Your task to perform on an android device: Is it going to rain tomorrow? Image 0: 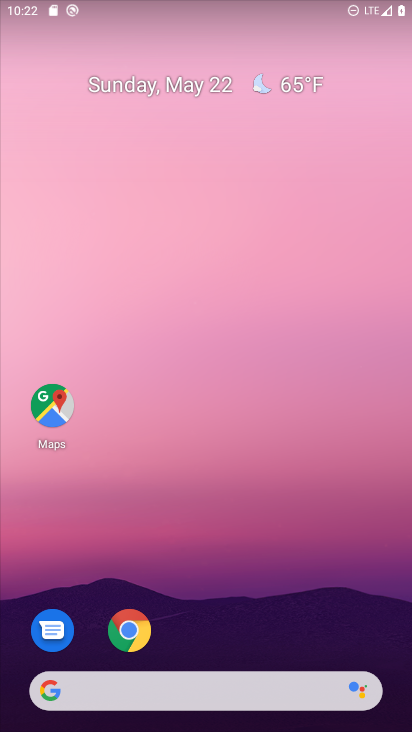
Step 0: click (53, 692)
Your task to perform on an android device: Is it going to rain tomorrow? Image 1: 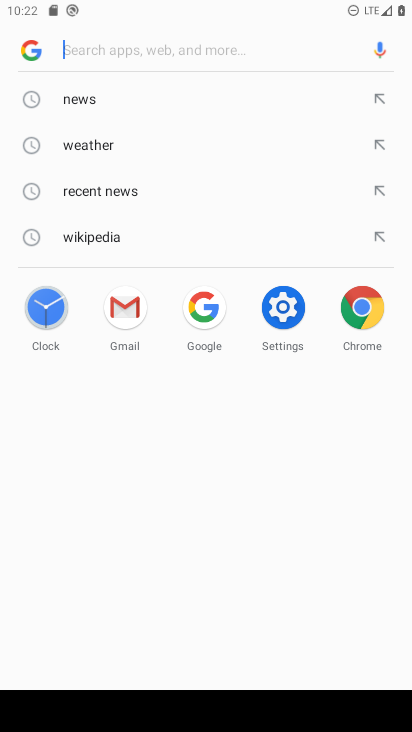
Step 1: click (100, 148)
Your task to perform on an android device: Is it going to rain tomorrow? Image 2: 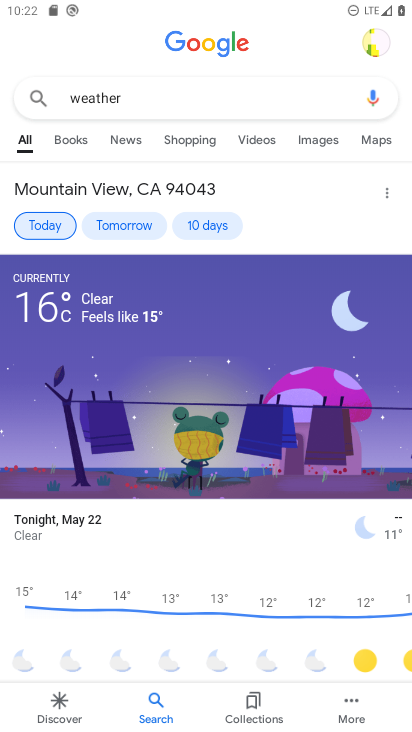
Step 2: click (135, 225)
Your task to perform on an android device: Is it going to rain tomorrow? Image 3: 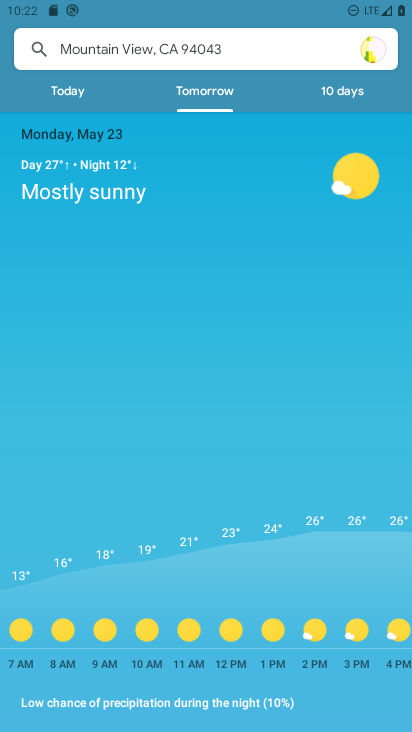
Step 3: task complete